Your task to perform on an android device: What is the recent news? Image 0: 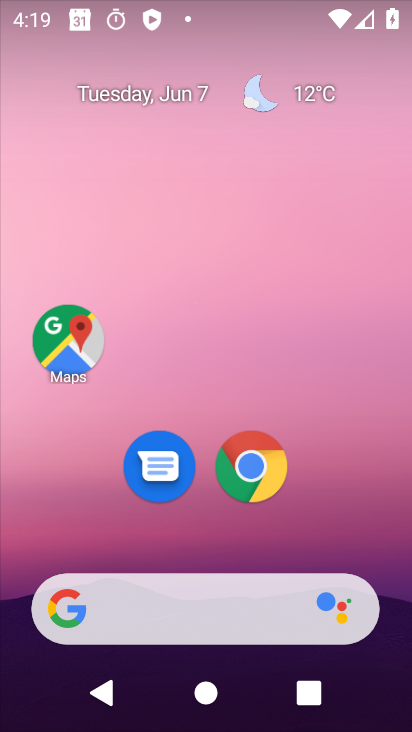
Step 0: click (267, 609)
Your task to perform on an android device: What is the recent news? Image 1: 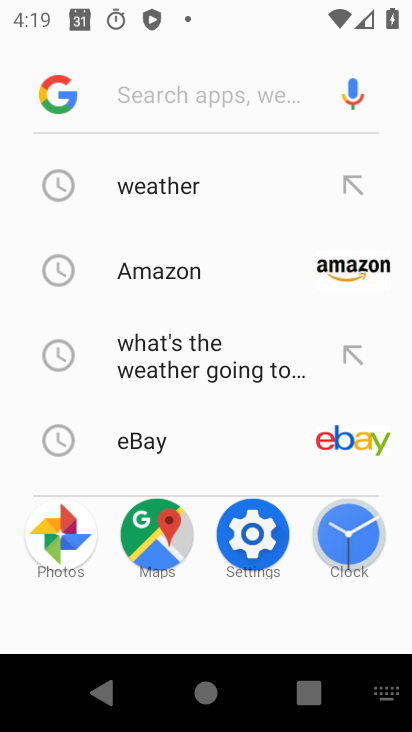
Step 1: click (190, 102)
Your task to perform on an android device: What is the recent news? Image 2: 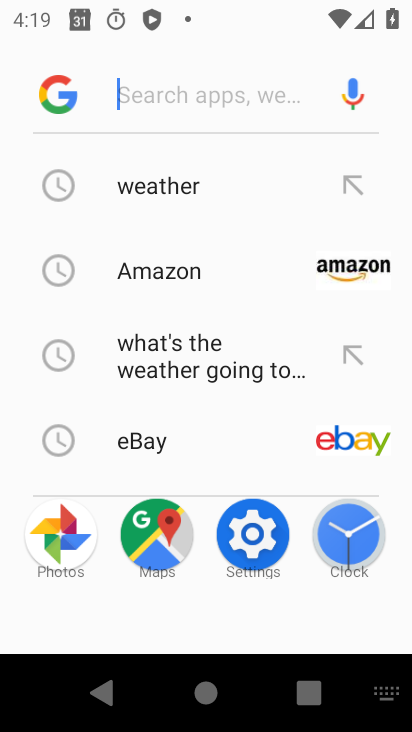
Step 2: type "recent news"
Your task to perform on an android device: What is the recent news? Image 3: 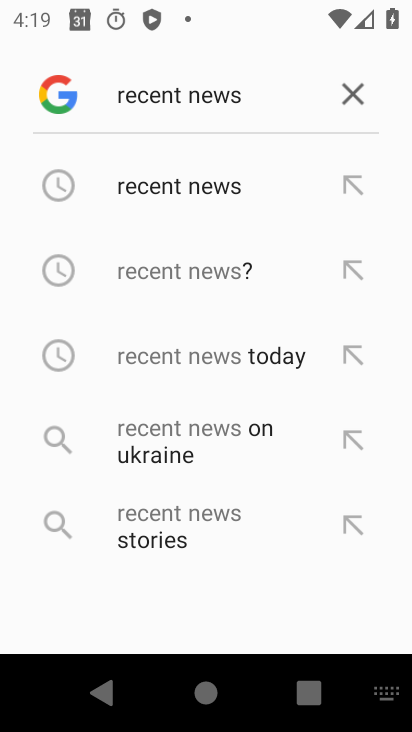
Step 3: click (231, 208)
Your task to perform on an android device: What is the recent news? Image 4: 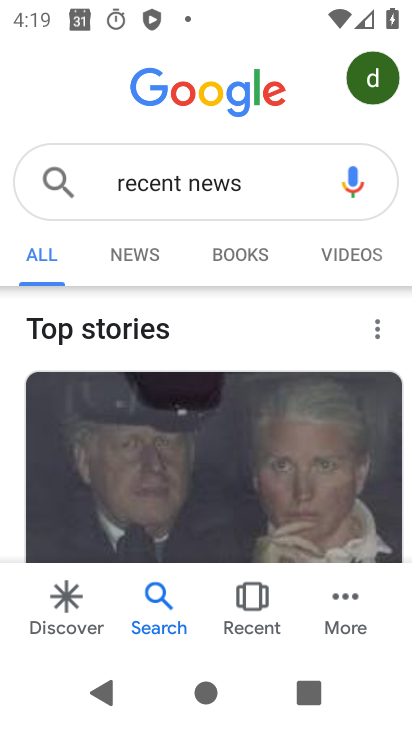
Step 4: task complete